Your task to perform on an android device: change your default location settings in chrome Image 0: 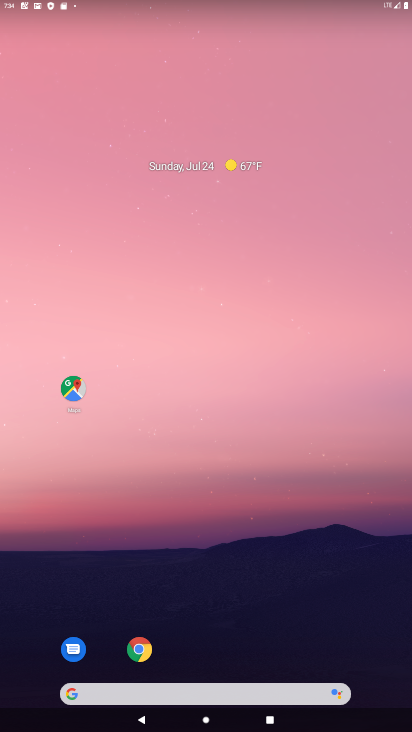
Step 0: drag from (222, 653) to (7, 161)
Your task to perform on an android device: change your default location settings in chrome Image 1: 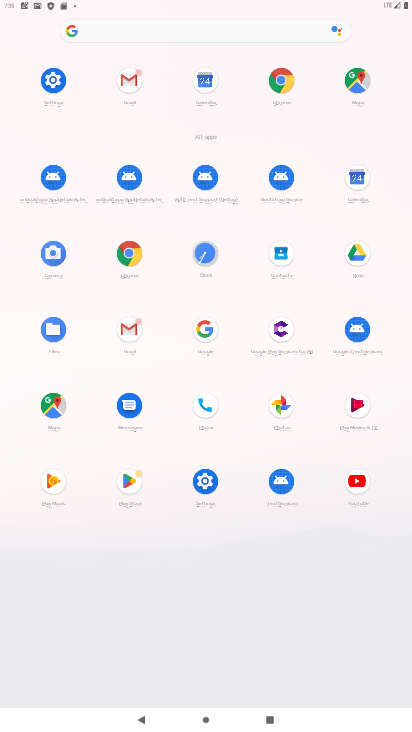
Step 1: click (275, 76)
Your task to perform on an android device: change your default location settings in chrome Image 2: 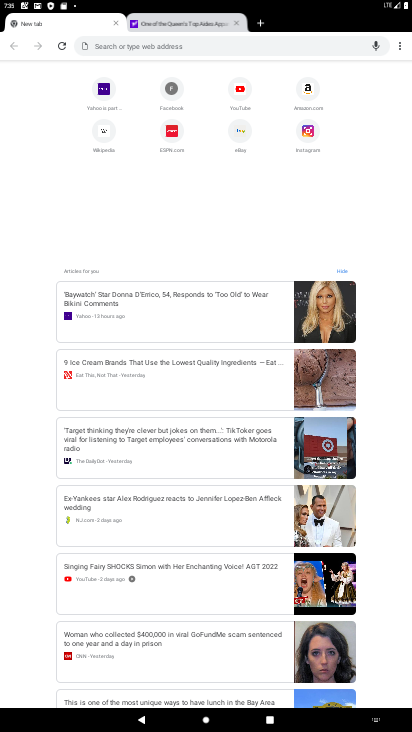
Step 2: click (401, 46)
Your task to perform on an android device: change your default location settings in chrome Image 3: 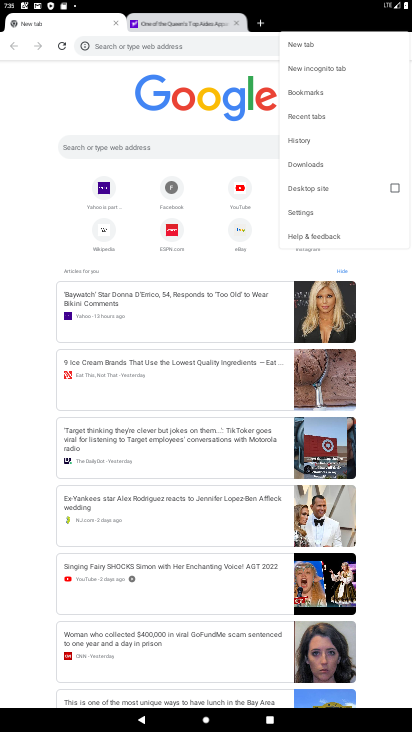
Step 3: click (295, 212)
Your task to perform on an android device: change your default location settings in chrome Image 4: 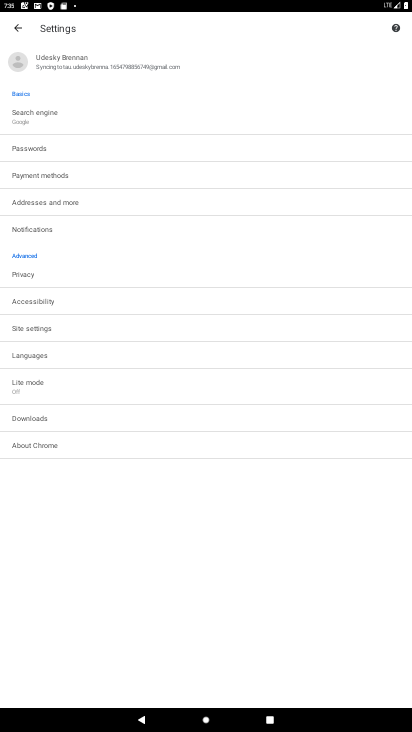
Step 4: click (33, 329)
Your task to perform on an android device: change your default location settings in chrome Image 5: 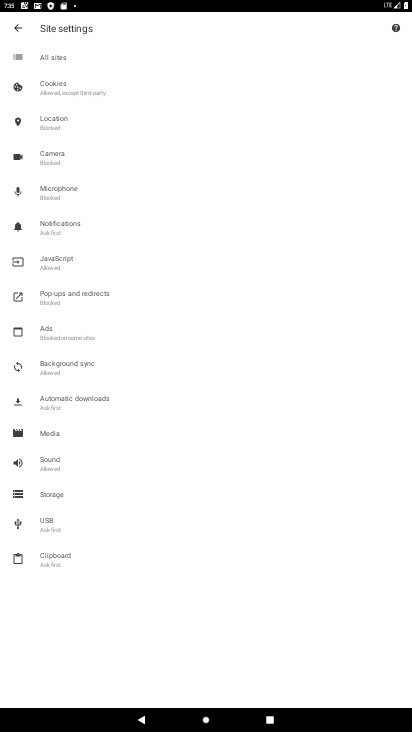
Step 5: click (38, 117)
Your task to perform on an android device: change your default location settings in chrome Image 6: 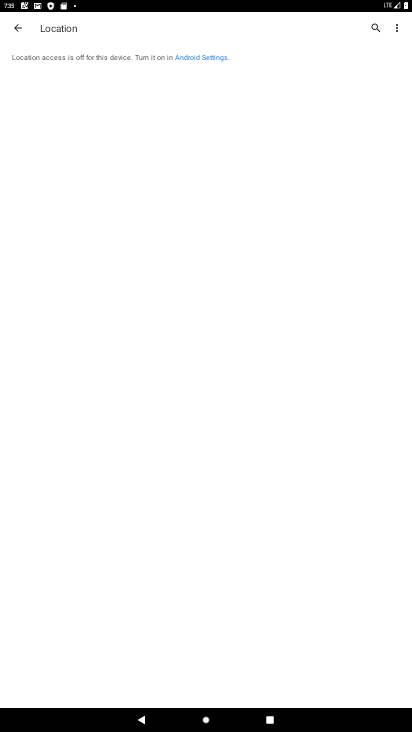
Step 6: task complete